Your task to perform on an android device: View the shopping cart on target.com. Search for "macbook pro 15 inch" on target.com, select the first entry, add it to the cart, then select checkout. Image 0: 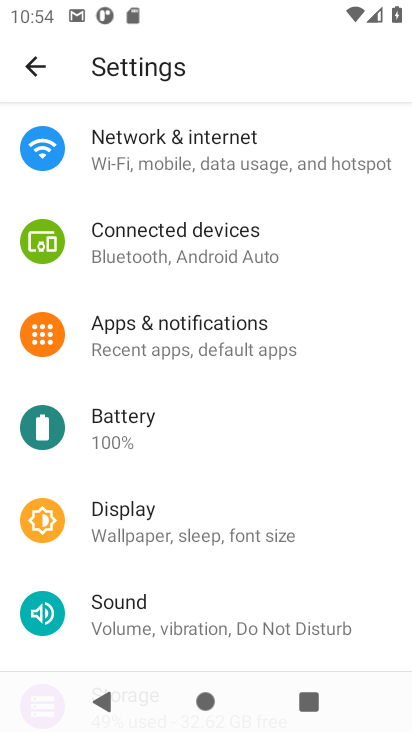
Step 0: press home button
Your task to perform on an android device: View the shopping cart on target.com. Search for "macbook pro 15 inch" on target.com, select the first entry, add it to the cart, then select checkout. Image 1: 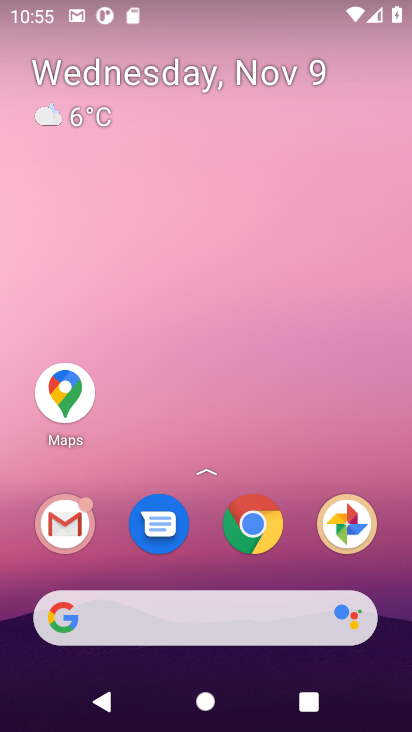
Step 1: click (253, 529)
Your task to perform on an android device: View the shopping cart on target.com. Search for "macbook pro 15 inch" on target.com, select the first entry, add it to the cart, then select checkout. Image 2: 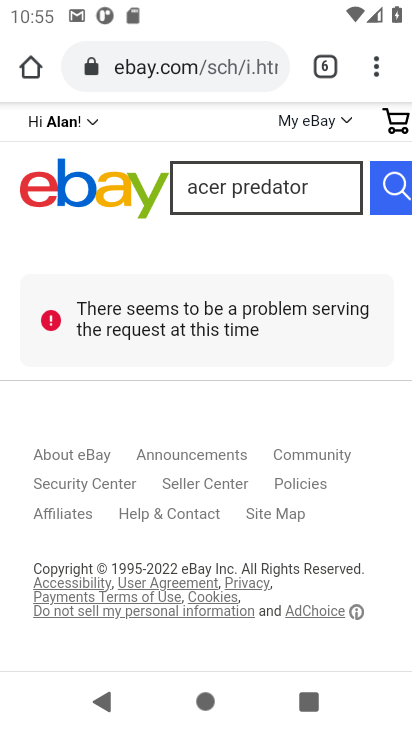
Step 2: click (326, 66)
Your task to perform on an android device: View the shopping cart on target.com. Search for "macbook pro 15 inch" on target.com, select the first entry, add it to the cart, then select checkout. Image 3: 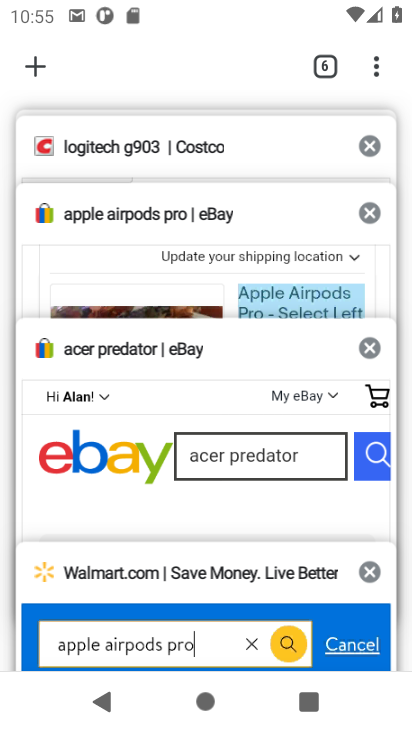
Step 3: click (373, 346)
Your task to perform on an android device: View the shopping cart on target.com. Search for "macbook pro 15 inch" on target.com, select the first entry, add it to the cart, then select checkout. Image 4: 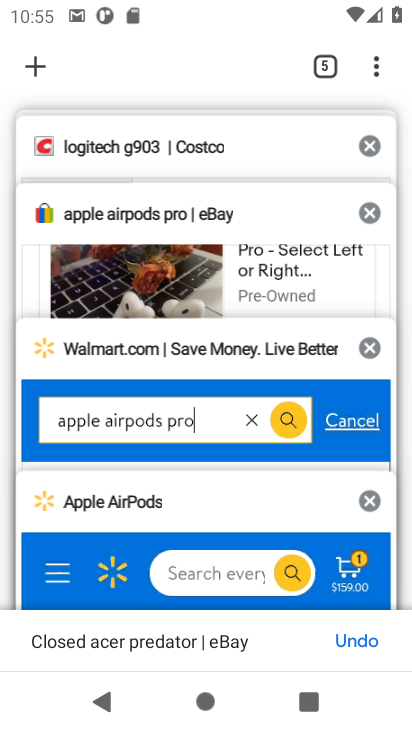
Step 4: drag from (287, 130) to (235, 376)
Your task to perform on an android device: View the shopping cart on target.com. Search for "macbook pro 15 inch" on target.com, select the first entry, add it to the cart, then select checkout. Image 5: 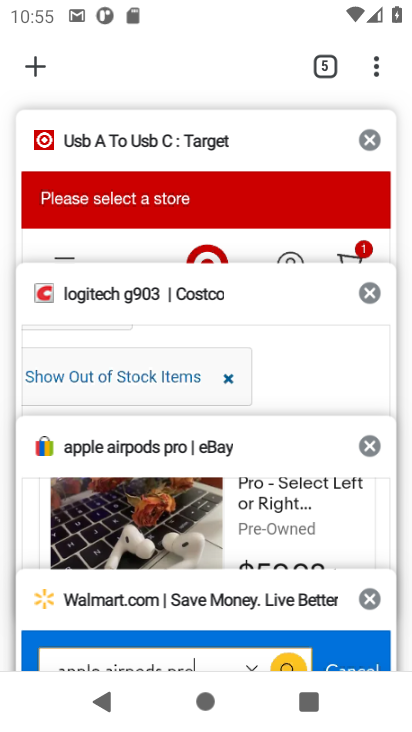
Step 5: click (135, 171)
Your task to perform on an android device: View the shopping cart on target.com. Search for "macbook pro 15 inch" on target.com, select the first entry, add it to the cart, then select checkout. Image 6: 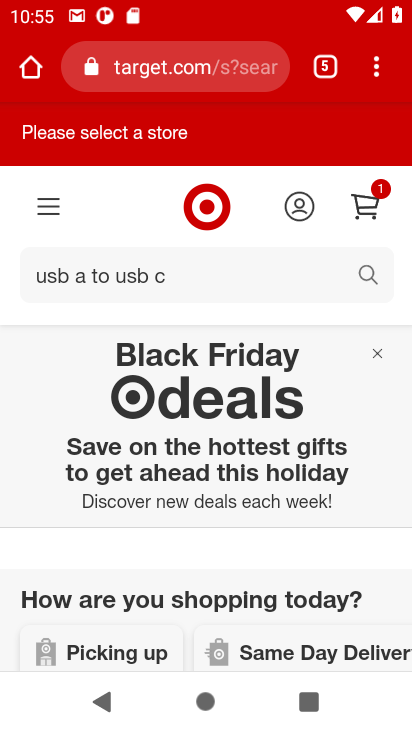
Step 6: click (176, 272)
Your task to perform on an android device: View the shopping cart on target.com. Search for "macbook pro 15 inch" on target.com, select the first entry, add it to the cart, then select checkout. Image 7: 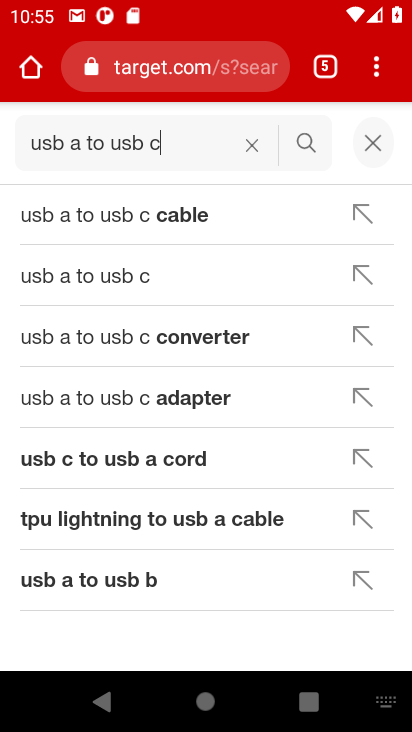
Step 7: click (255, 142)
Your task to perform on an android device: View the shopping cart on target.com. Search for "macbook pro 15 inch" on target.com, select the first entry, add it to the cart, then select checkout. Image 8: 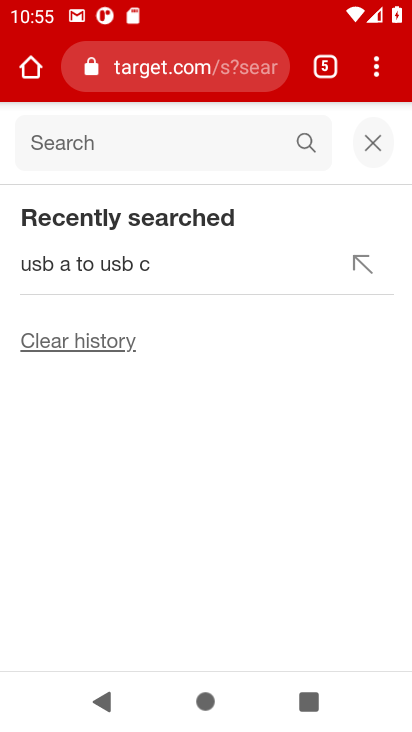
Step 8: click (198, 144)
Your task to perform on an android device: View the shopping cart on target.com. Search for "macbook pro 15 inch" on target.com, select the first entry, add it to the cart, then select checkout. Image 9: 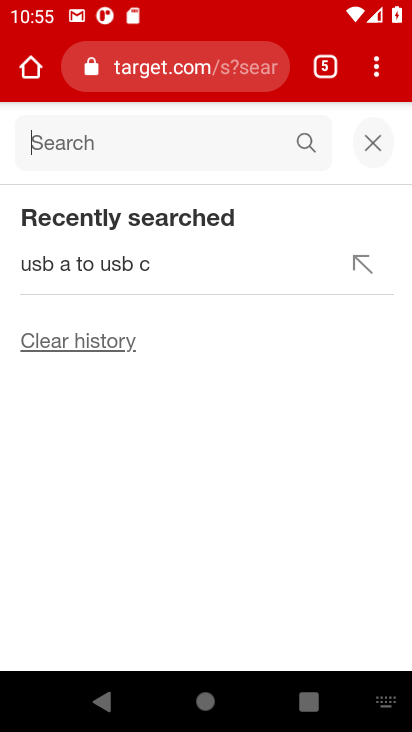
Step 9: type "macbook pro 15 inch"
Your task to perform on an android device: View the shopping cart on target.com. Search for "macbook pro 15 inch" on target.com, select the first entry, add it to the cart, then select checkout. Image 10: 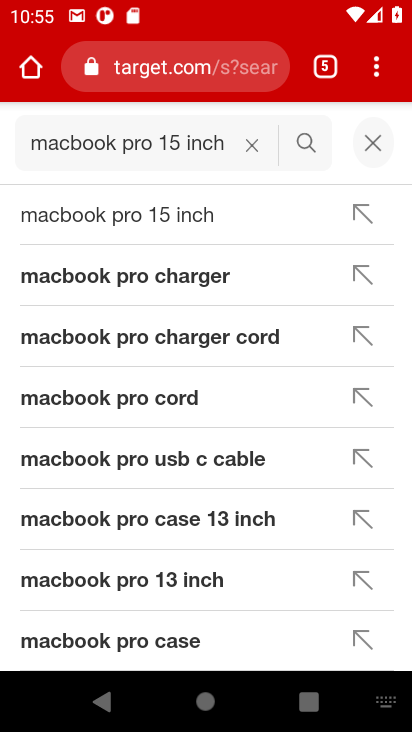
Step 10: click (172, 213)
Your task to perform on an android device: View the shopping cart on target.com. Search for "macbook pro 15 inch" on target.com, select the first entry, add it to the cart, then select checkout. Image 11: 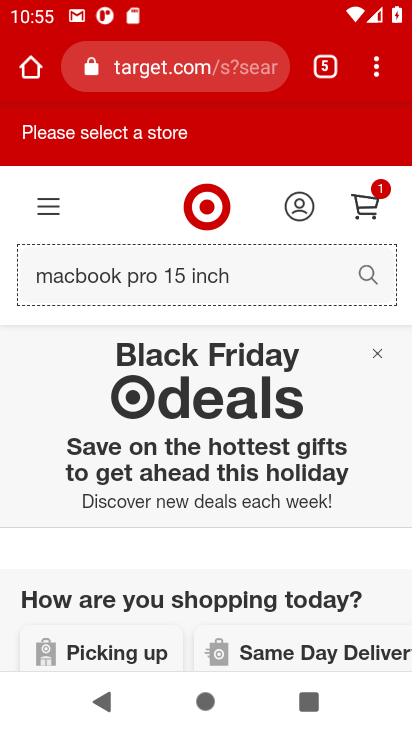
Step 11: drag from (206, 524) to (332, 139)
Your task to perform on an android device: View the shopping cart on target.com. Search for "macbook pro 15 inch" on target.com, select the first entry, add it to the cart, then select checkout. Image 12: 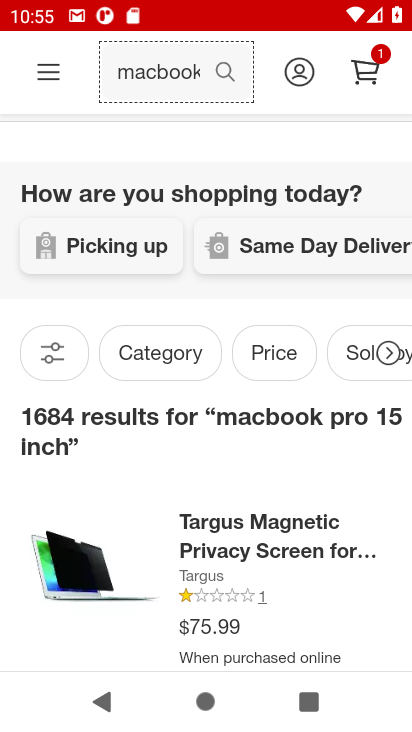
Step 12: drag from (273, 564) to (334, 301)
Your task to perform on an android device: View the shopping cart on target.com. Search for "macbook pro 15 inch" on target.com, select the first entry, add it to the cart, then select checkout. Image 13: 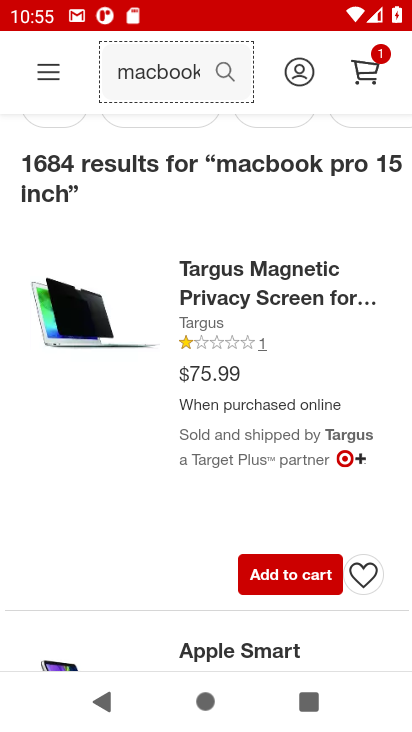
Step 13: drag from (193, 622) to (214, 339)
Your task to perform on an android device: View the shopping cart on target.com. Search for "macbook pro 15 inch" on target.com, select the first entry, add it to the cart, then select checkout. Image 14: 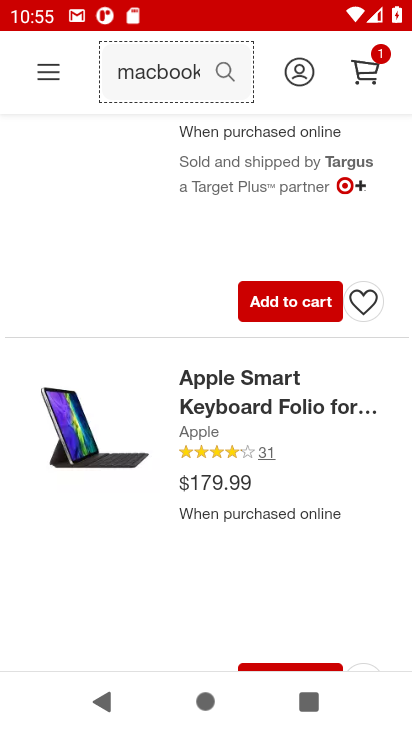
Step 14: drag from (335, 503) to (345, 218)
Your task to perform on an android device: View the shopping cart on target.com. Search for "macbook pro 15 inch" on target.com, select the first entry, add it to the cart, then select checkout. Image 15: 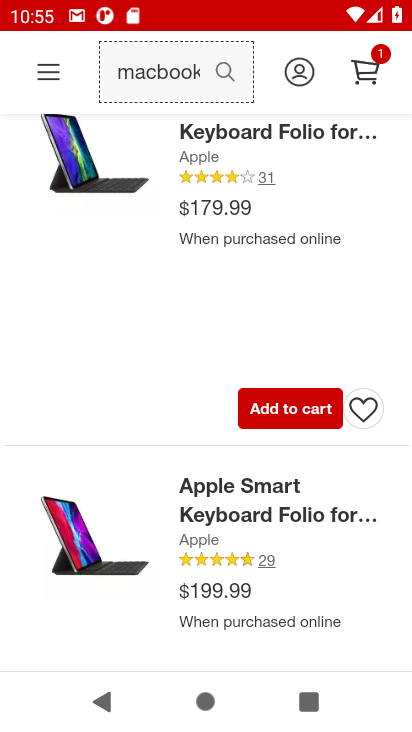
Step 15: click (276, 403)
Your task to perform on an android device: View the shopping cart on target.com. Search for "macbook pro 15 inch" on target.com, select the first entry, add it to the cart, then select checkout. Image 16: 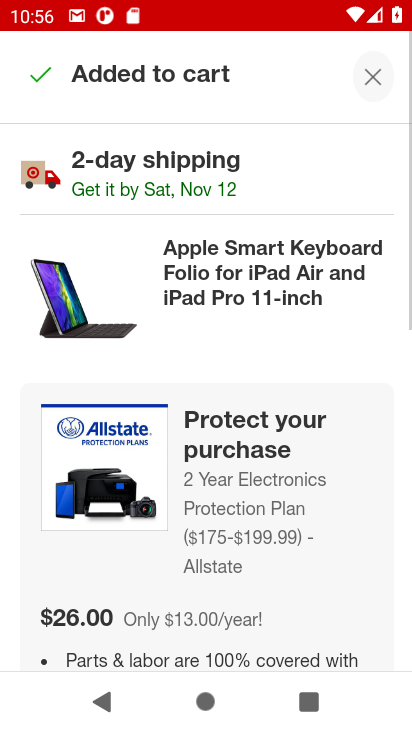
Step 16: task complete